Your task to perform on an android device: See recent photos Image 0: 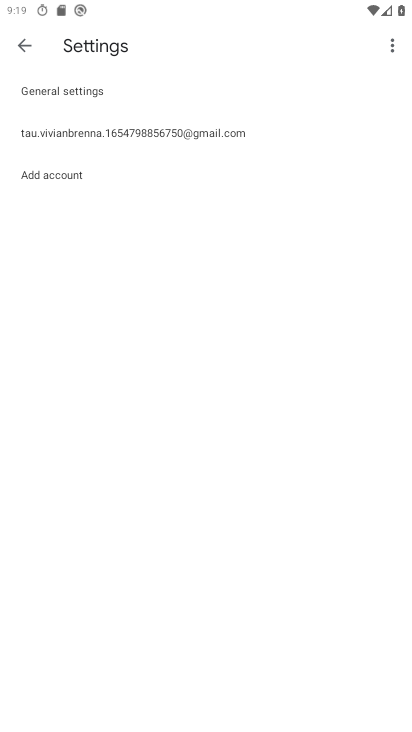
Step 0: press home button
Your task to perform on an android device: See recent photos Image 1: 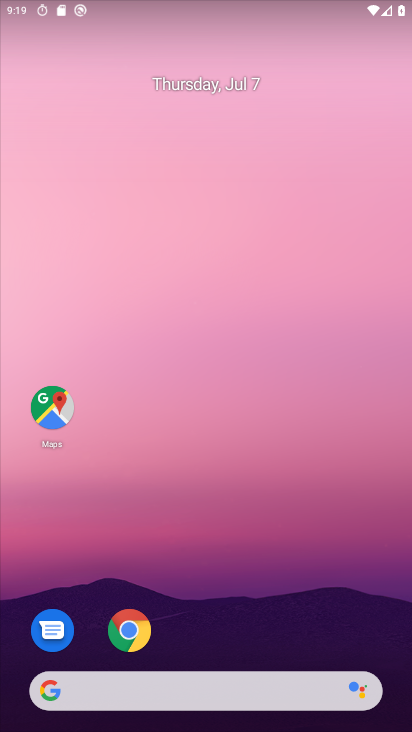
Step 1: drag from (18, 712) to (358, 3)
Your task to perform on an android device: See recent photos Image 2: 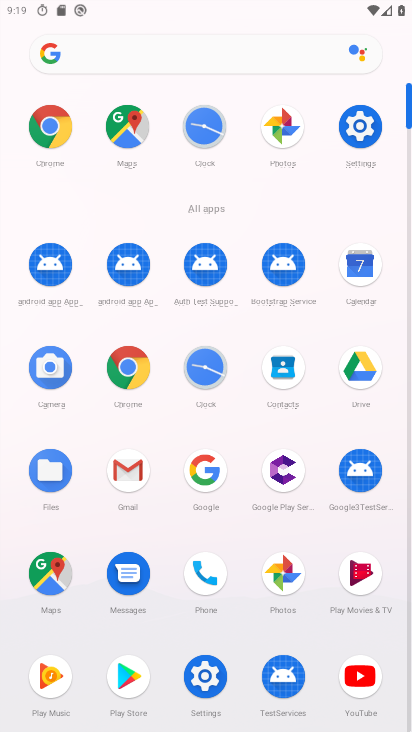
Step 2: click (272, 129)
Your task to perform on an android device: See recent photos Image 3: 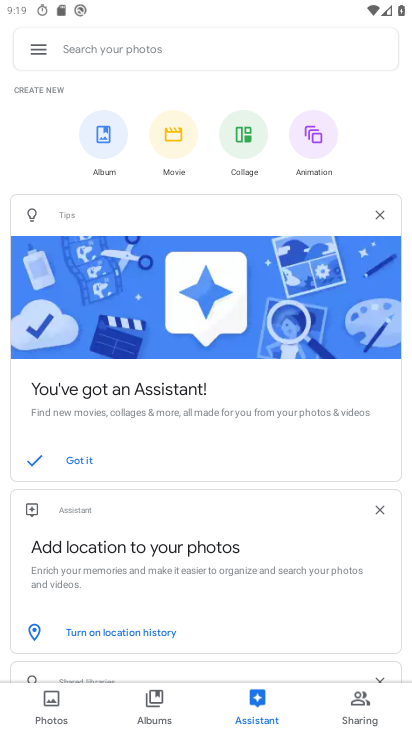
Step 3: click (53, 705)
Your task to perform on an android device: See recent photos Image 4: 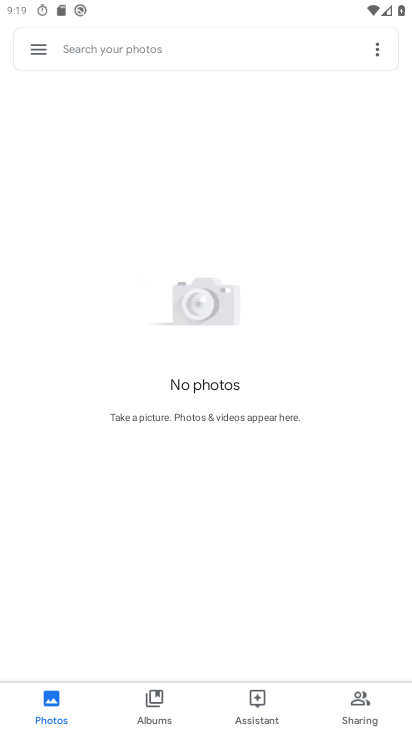
Step 4: task complete